Your task to perform on an android device: Go to settings Image 0: 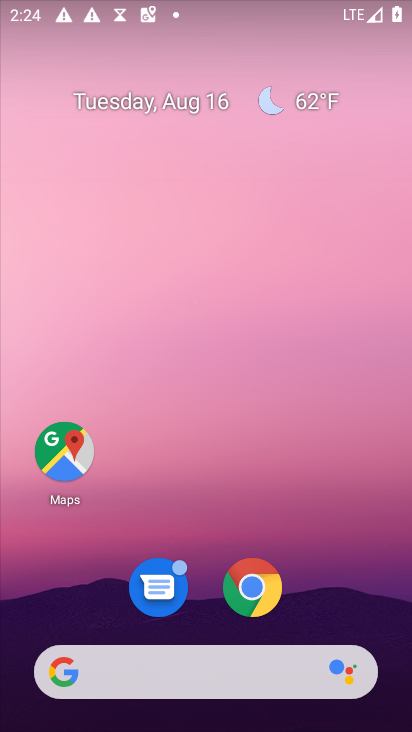
Step 0: drag from (198, 611) to (300, 85)
Your task to perform on an android device: Go to settings Image 1: 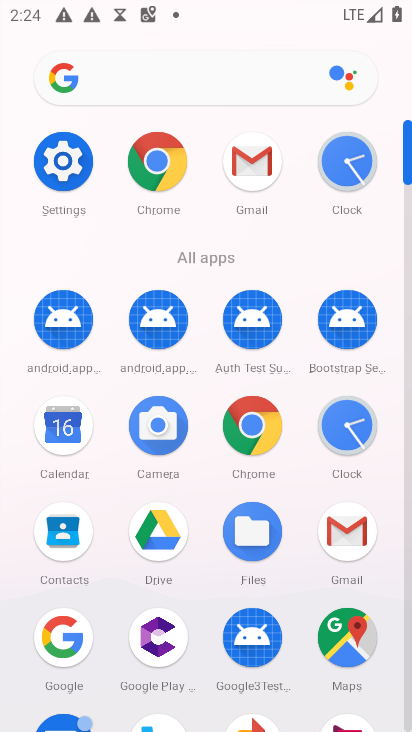
Step 1: click (69, 159)
Your task to perform on an android device: Go to settings Image 2: 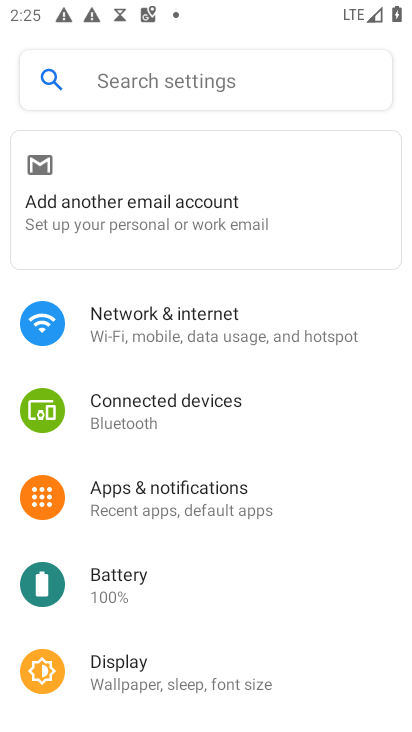
Step 2: task complete